Your task to perform on an android device: open app "HBO Max: Stream TV & Movies" Image 0: 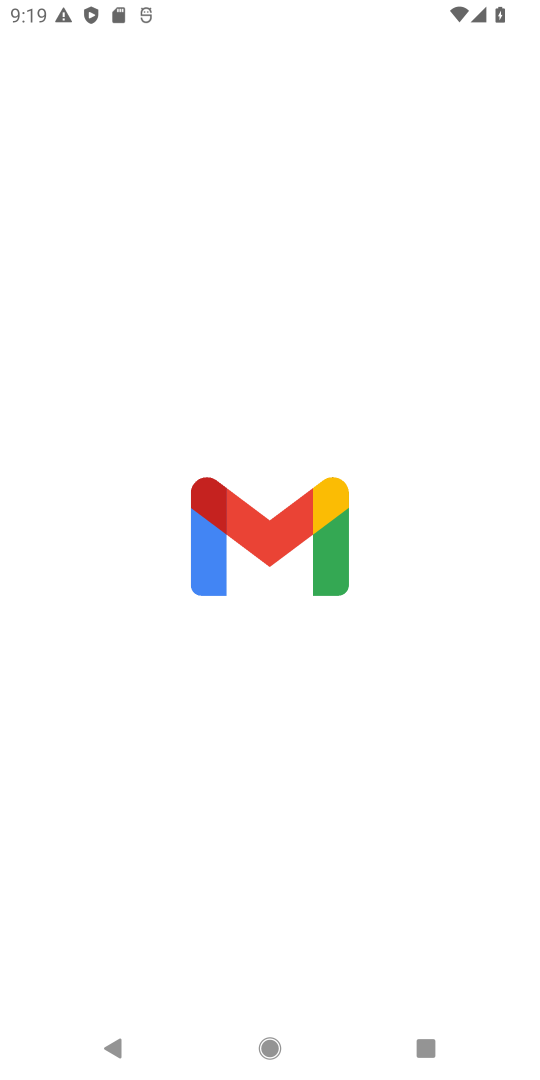
Step 0: click (249, 1056)
Your task to perform on an android device: open app "HBO Max: Stream TV & Movies" Image 1: 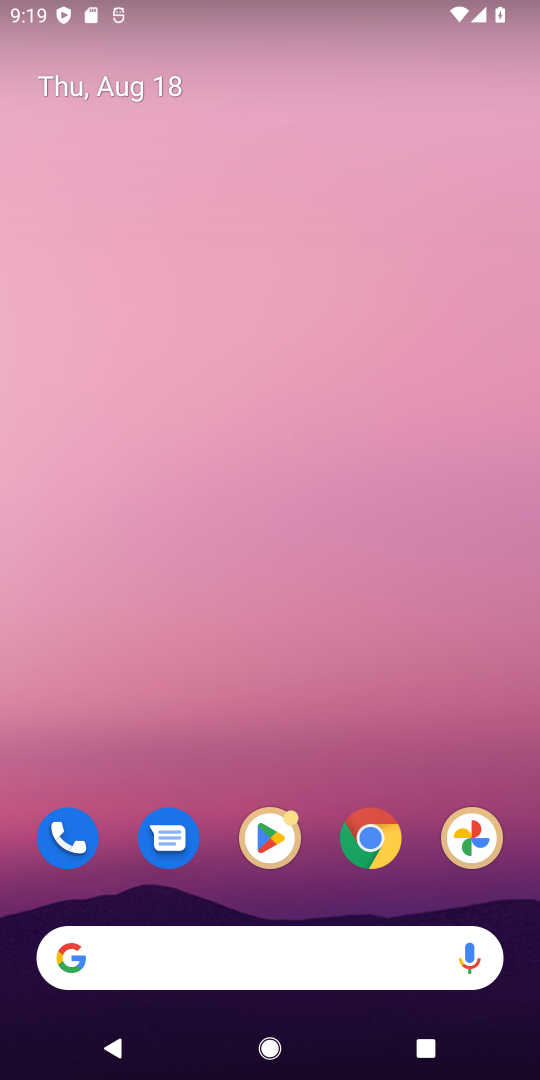
Step 1: click (287, 843)
Your task to perform on an android device: open app "HBO Max: Stream TV & Movies" Image 2: 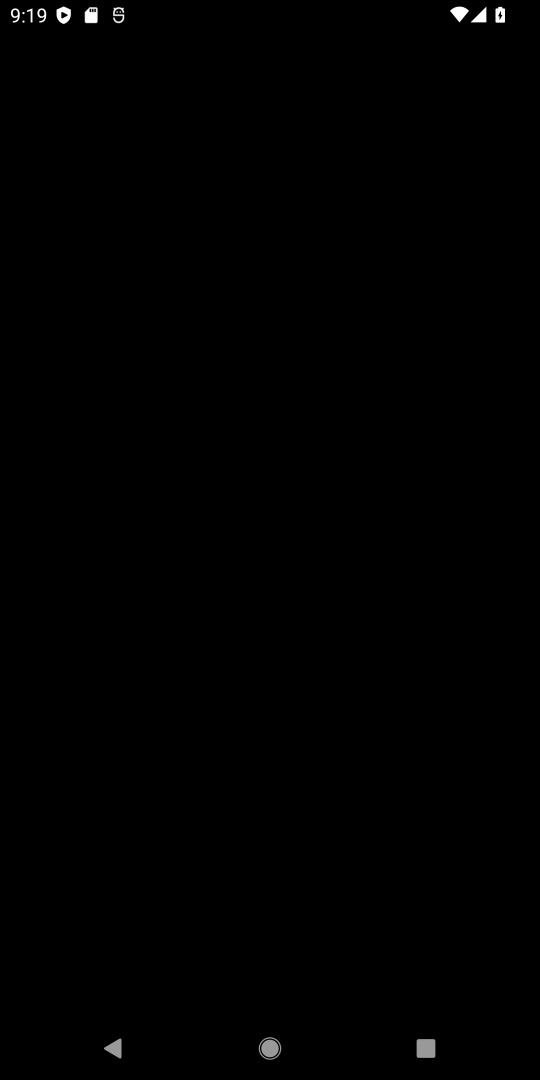
Step 2: task complete